Your task to perform on an android device: choose inbox layout in the gmail app Image 0: 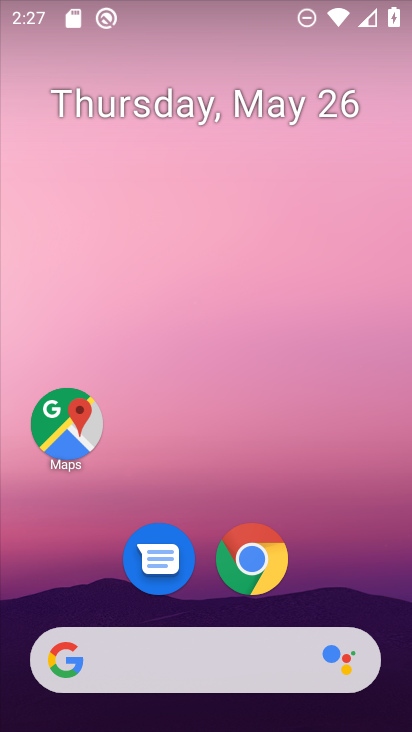
Step 0: drag from (242, 657) to (328, 253)
Your task to perform on an android device: choose inbox layout in the gmail app Image 1: 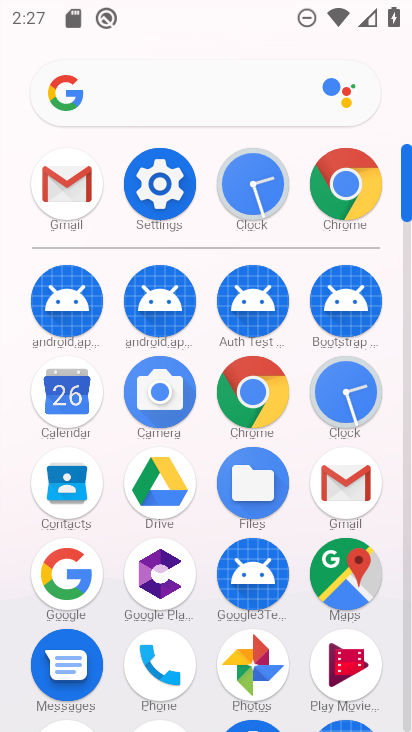
Step 1: click (81, 187)
Your task to perform on an android device: choose inbox layout in the gmail app Image 2: 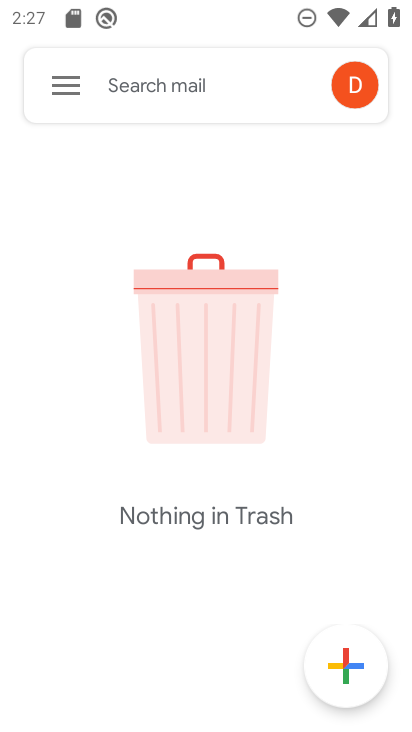
Step 2: click (63, 77)
Your task to perform on an android device: choose inbox layout in the gmail app Image 3: 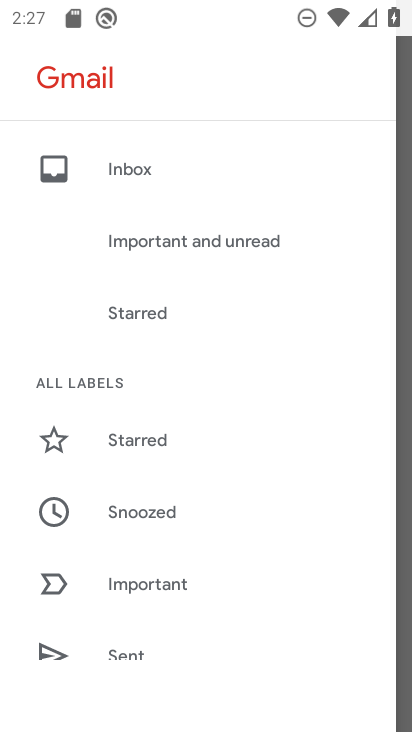
Step 3: drag from (235, 601) to (391, 262)
Your task to perform on an android device: choose inbox layout in the gmail app Image 4: 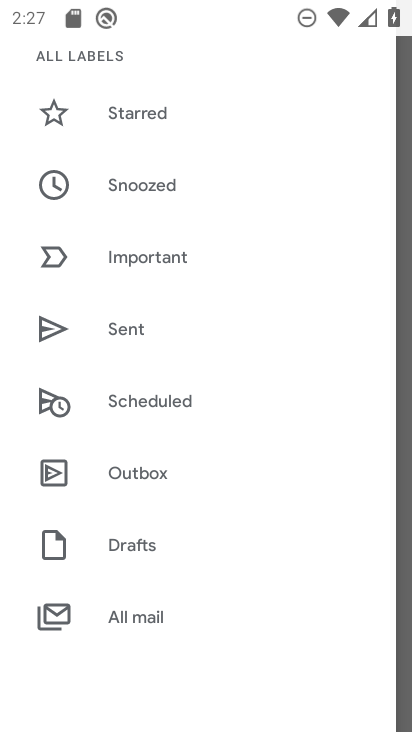
Step 4: click (164, 344)
Your task to perform on an android device: choose inbox layout in the gmail app Image 5: 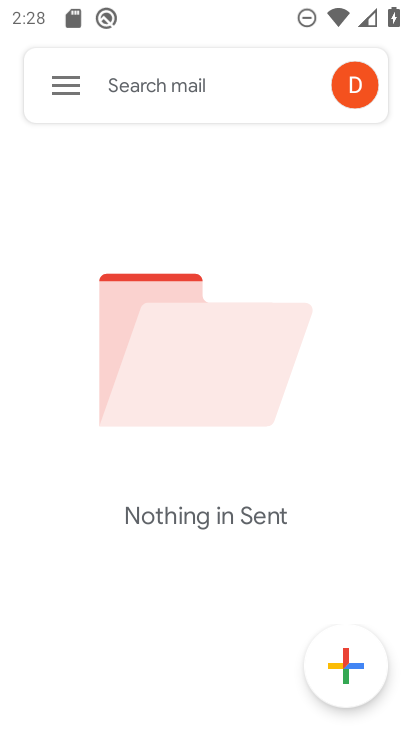
Step 5: click (69, 88)
Your task to perform on an android device: choose inbox layout in the gmail app Image 6: 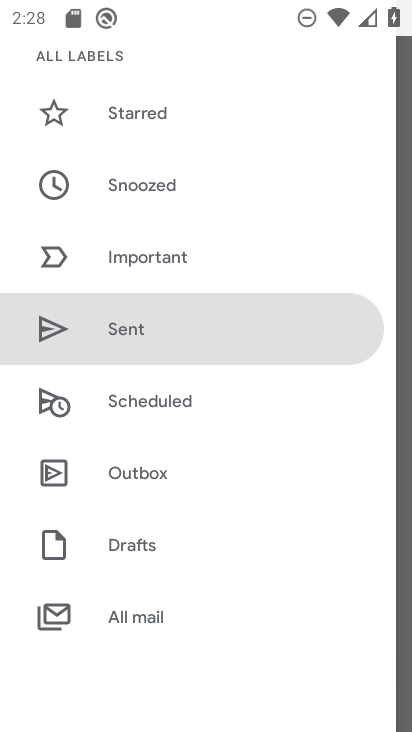
Step 6: drag from (226, 611) to (300, 230)
Your task to perform on an android device: choose inbox layout in the gmail app Image 7: 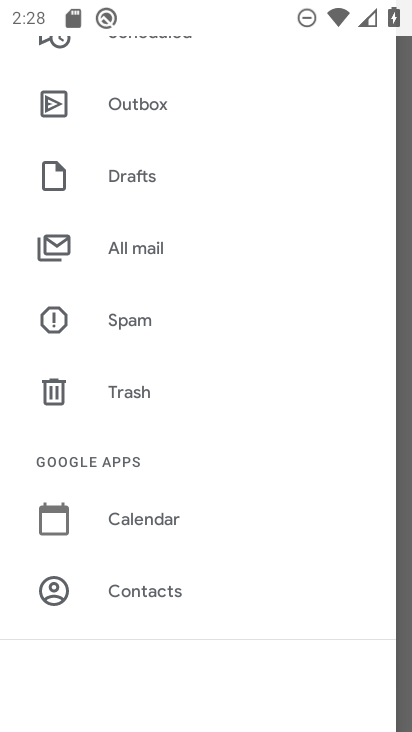
Step 7: drag from (242, 579) to (344, 270)
Your task to perform on an android device: choose inbox layout in the gmail app Image 8: 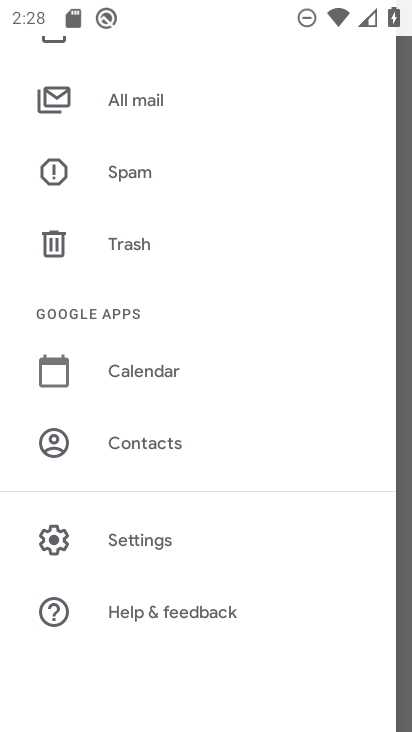
Step 8: click (161, 542)
Your task to perform on an android device: choose inbox layout in the gmail app Image 9: 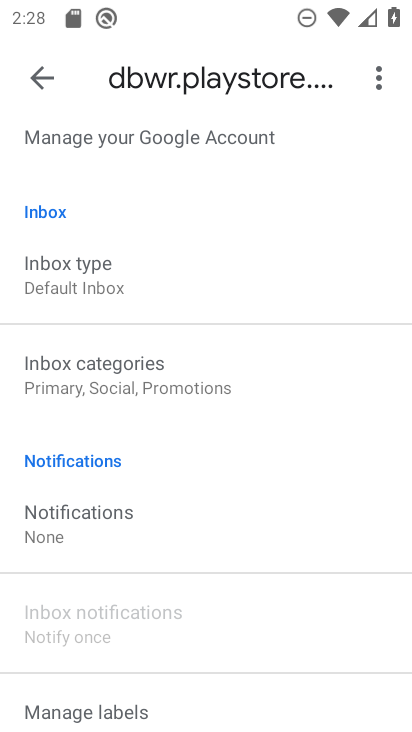
Step 9: click (79, 286)
Your task to perform on an android device: choose inbox layout in the gmail app Image 10: 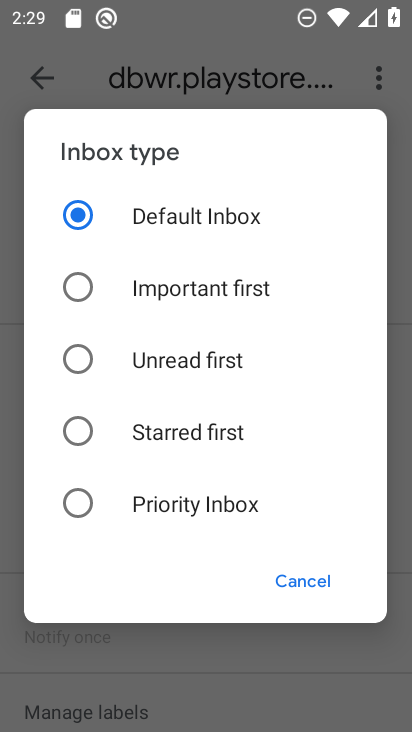
Step 10: task complete